Your task to perform on an android device: set an alarm Image 0: 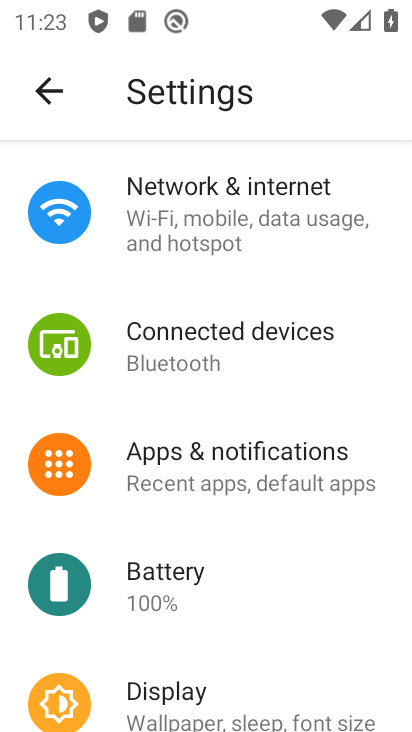
Step 0: press home button
Your task to perform on an android device: set an alarm Image 1: 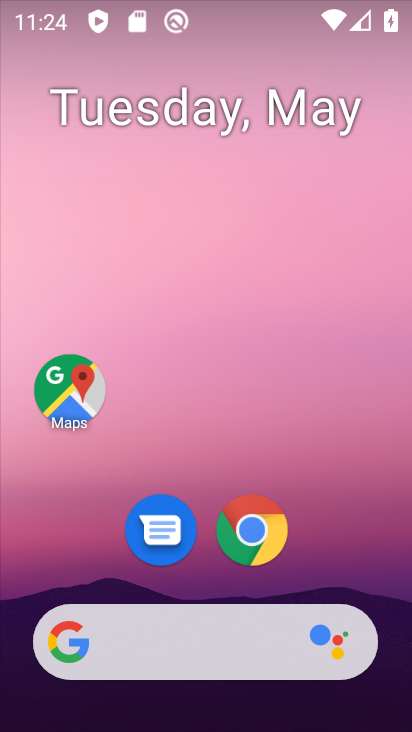
Step 1: drag from (190, 594) to (312, 74)
Your task to perform on an android device: set an alarm Image 2: 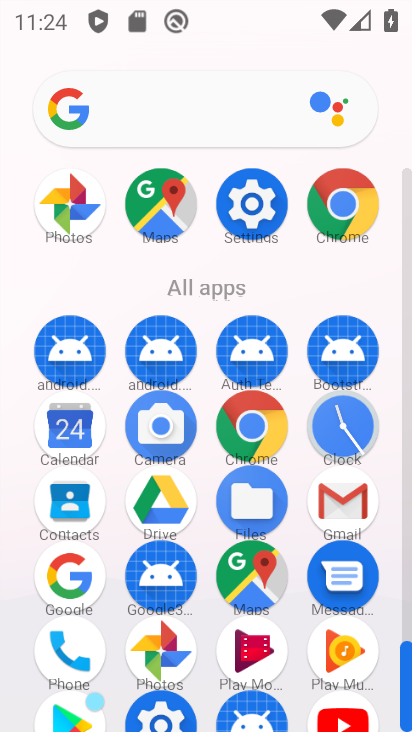
Step 2: click (342, 431)
Your task to perform on an android device: set an alarm Image 3: 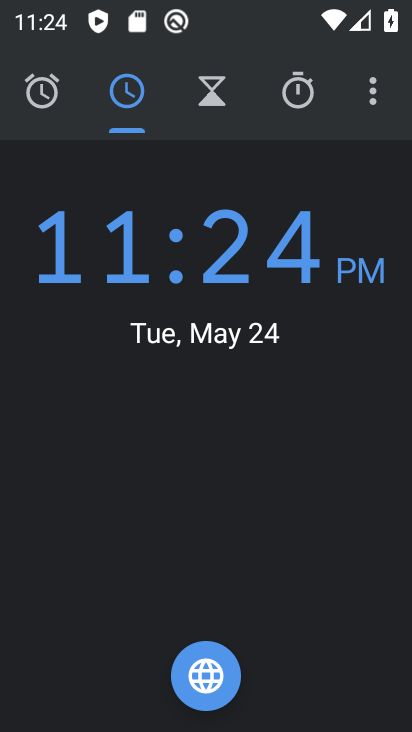
Step 3: click (374, 98)
Your task to perform on an android device: set an alarm Image 4: 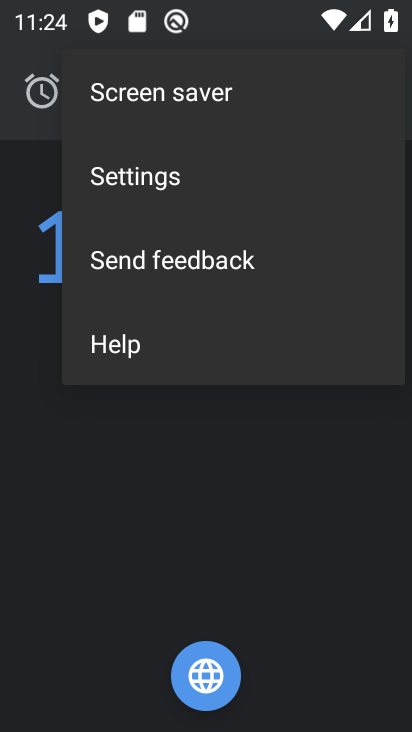
Step 4: click (184, 183)
Your task to perform on an android device: set an alarm Image 5: 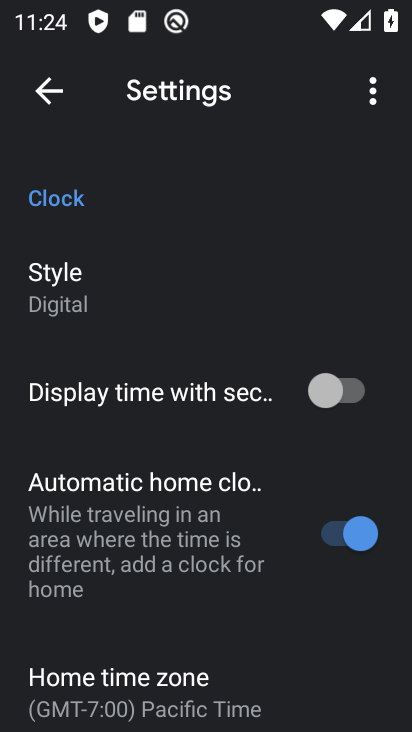
Step 5: click (60, 93)
Your task to perform on an android device: set an alarm Image 6: 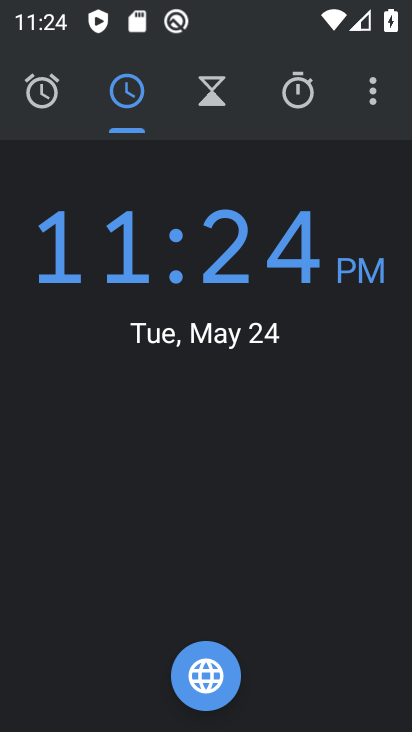
Step 6: click (46, 112)
Your task to perform on an android device: set an alarm Image 7: 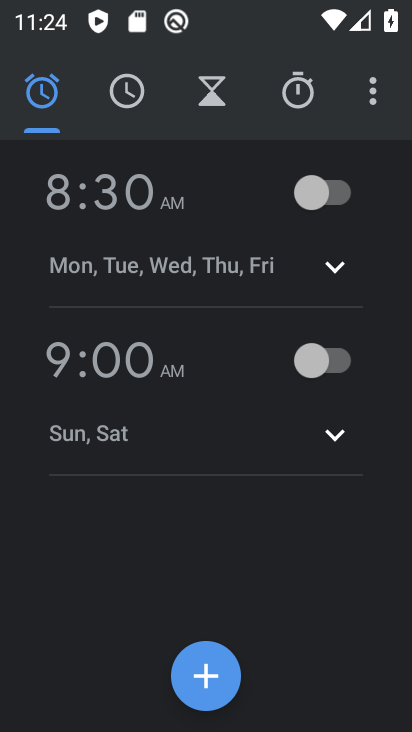
Step 7: task complete